Your task to perform on an android device: turn on notifications settings in the gmail app Image 0: 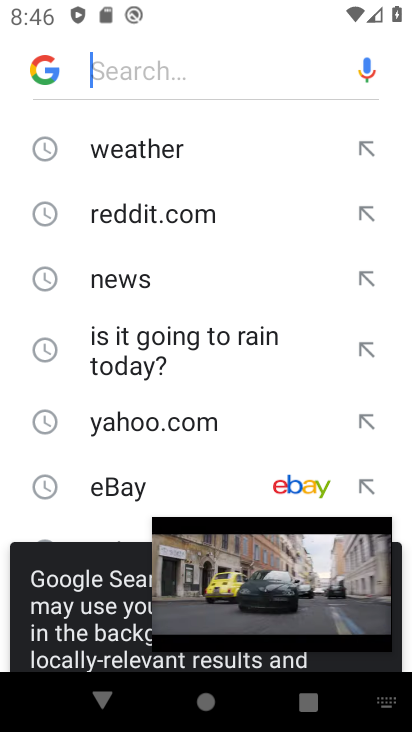
Step 0: press back button
Your task to perform on an android device: turn on notifications settings in the gmail app Image 1: 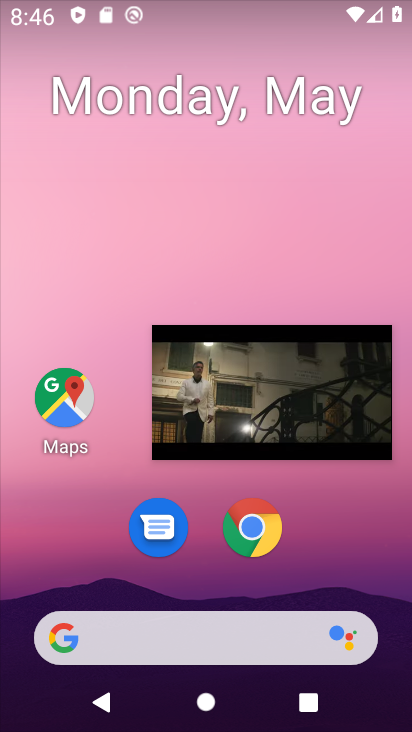
Step 1: click (326, 361)
Your task to perform on an android device: turn on notifications settings in the gmail app Image 2: 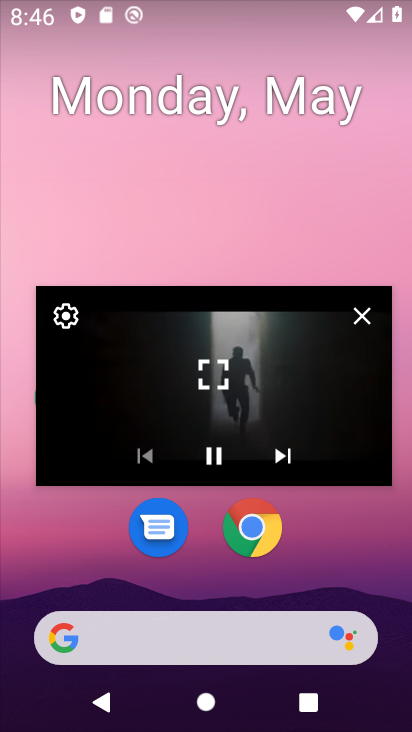
Step 2: click (365, 315)
Your task to perform on an android device: turn on notifications settings in the gmail app Image 3: 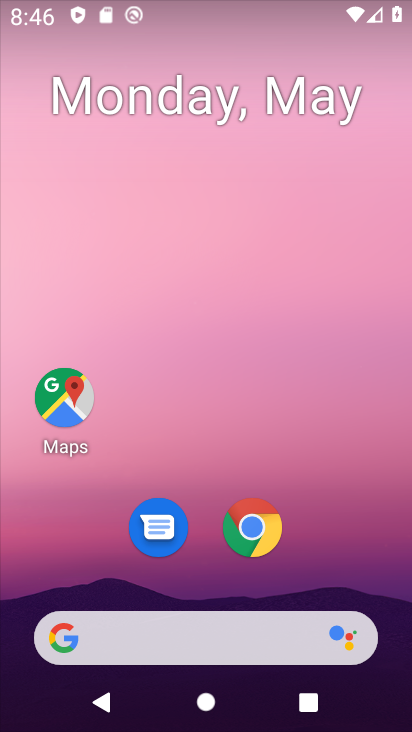
Step 3: drag from (361, 544) to (177, 0)
Your task to perform on an android device: turn on notifications settings in the gmail app Image 4: 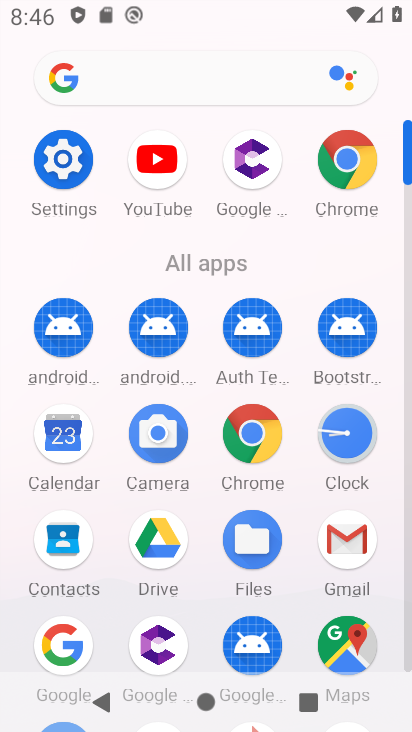
Step 4: drag from (11, 522) to (12, 173)
Your task to perform on an android device: turn on notifications settings in the gmail app Image 5: 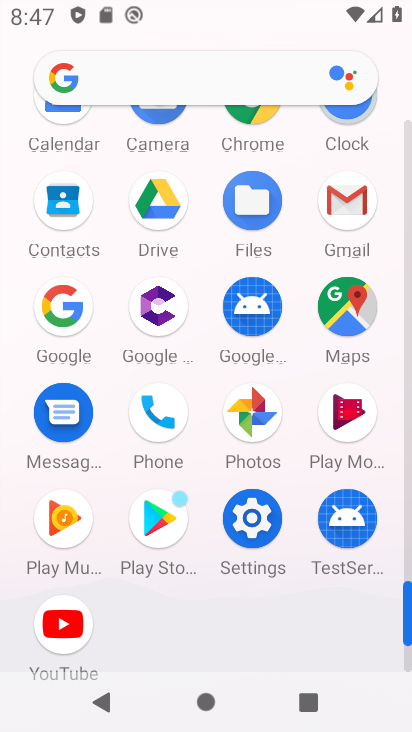
Step 5: click (343, 193)
Your task to perform on an android device: turn on notifications settings in the gmail app Image 6: 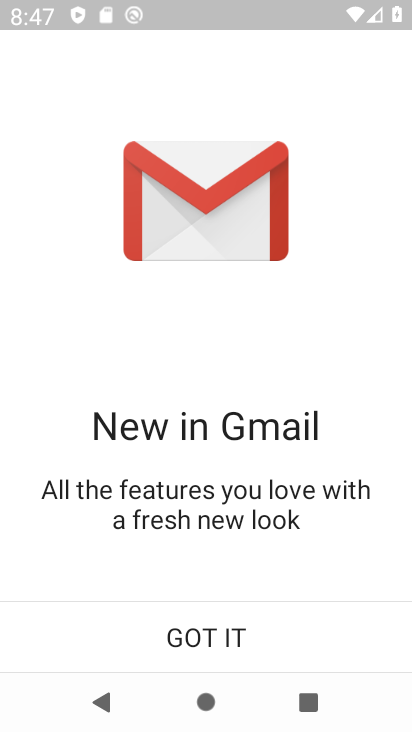
Step 6: click (231, 635)
Your task to perform on an android device: turn on notifications settings in the gmail app Image 7: 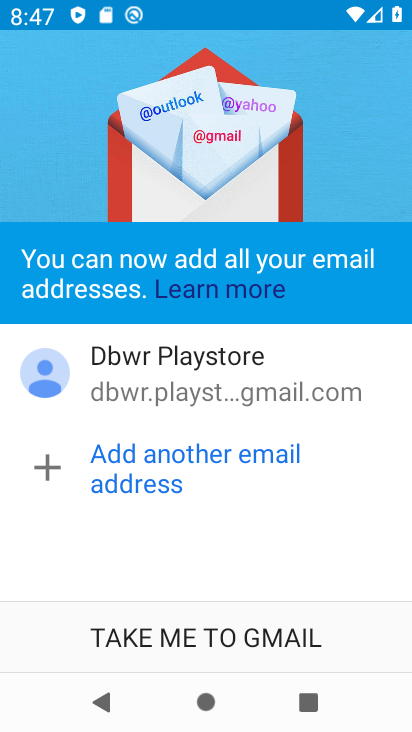
Step 7: click (211, 634)
Your task to perform on an android device: turn on notifications settings in the gmail app Image 8: 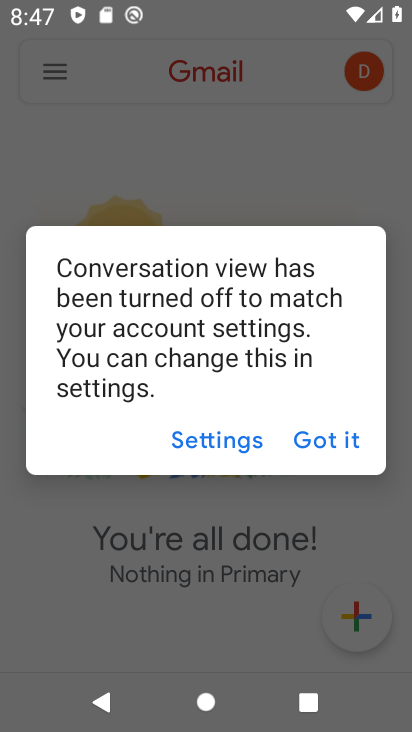
Step 8: click (345, 440)
Your task to perform on an android device: turn on notifications settings in the gmail app Image 9: 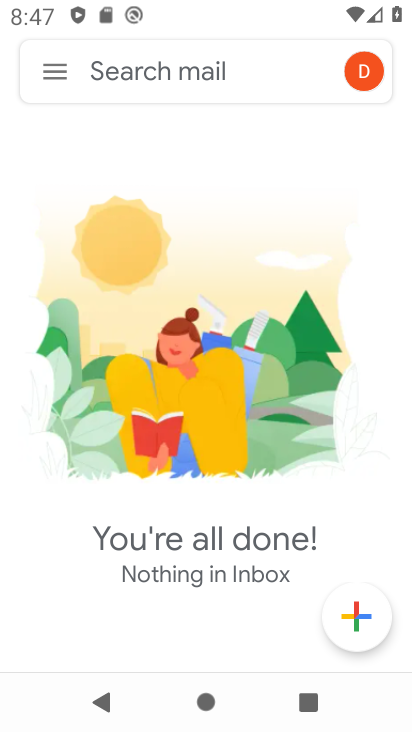
Step 9: click (70, 70)
Your task to perform on an android device: turn on notifications settings in the gmail app Image 10: 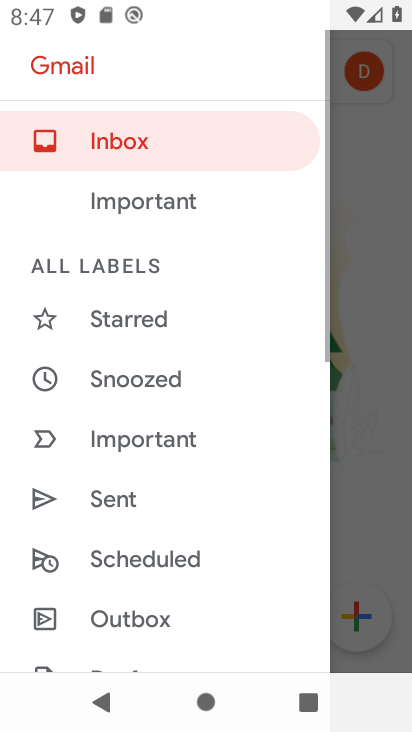
Step 10: drag from (181, 485) to (154, 129)
Your task to perform on an android device: turn on notifications settings in the gmail app Image 11: 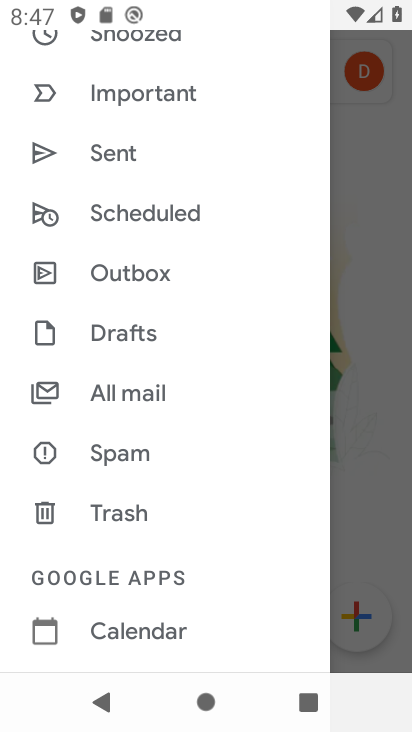
Step 11: drag from (159, 362) to (183, 137)
Your task to perform on an android device: turn on notifications settings in the gmail app Image 12: 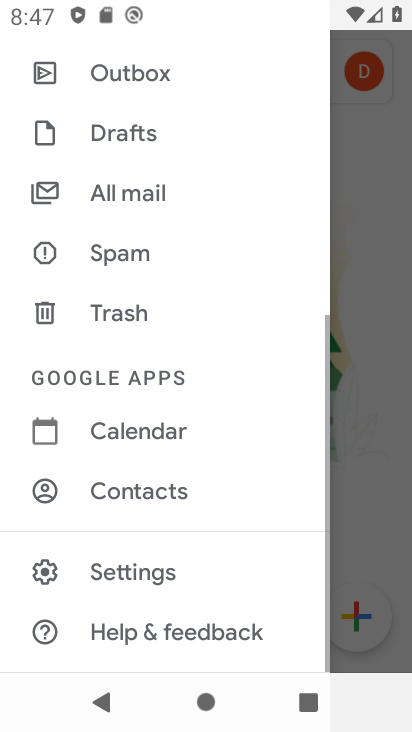
Step 12: click (120, 581)
Your task to perform on an android device: turn on notifications settings in the gmail app Image 13: 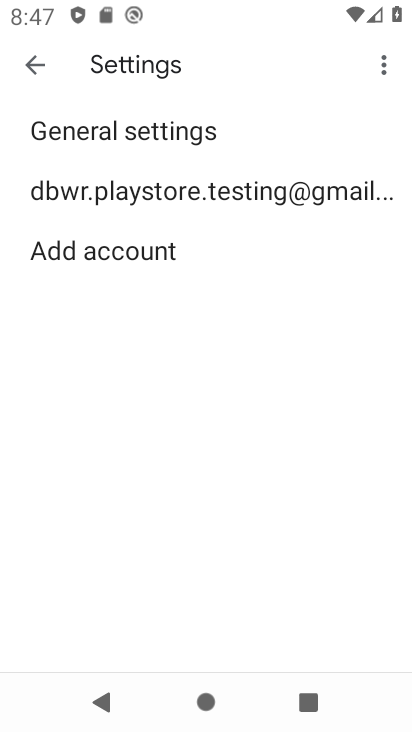
Step 13: click (209, 194)
Your task to perform on an android device: turn on notifications settings in the gmail app Image 14: 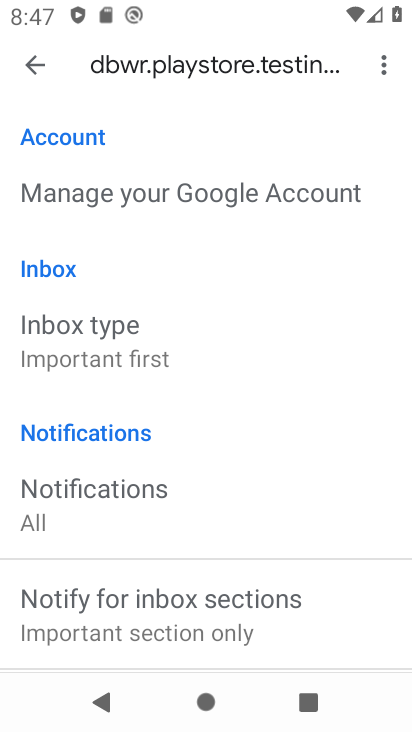
Step 14: drag from (214, 530) to (232, 100)
Your task to perform on an android device: turn on notifications settings in the gmail app Image 15: 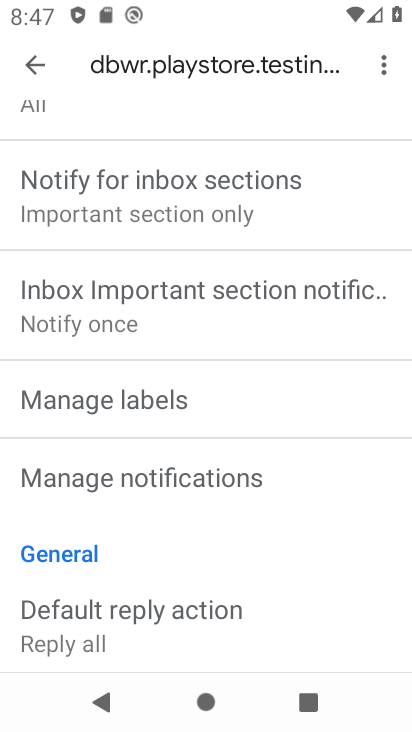
Step 15: click (184, 461)
Your task to perform on an android device: turn on notifications settings in the gmail app Image 16: 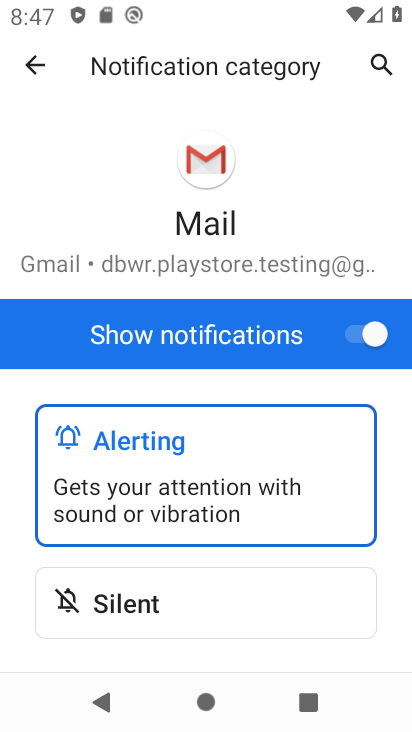
Step 16: task complete